Your task to perform on an android device: Go to network settings Image 0: 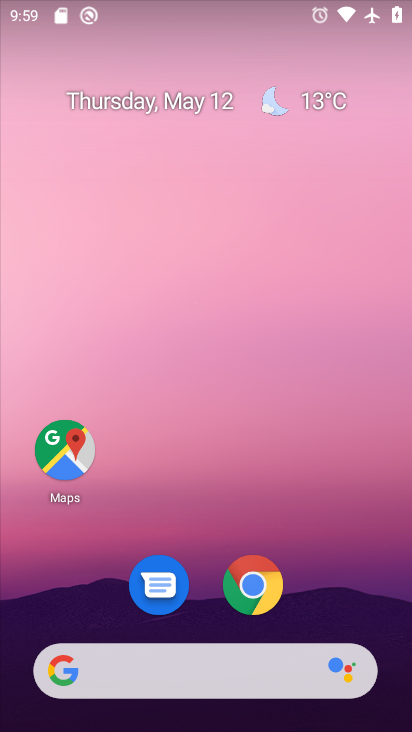
Step 0: drag from (245, 523) to (286, 59)
Your task to perform on an android device: Go to network settings Image 1: 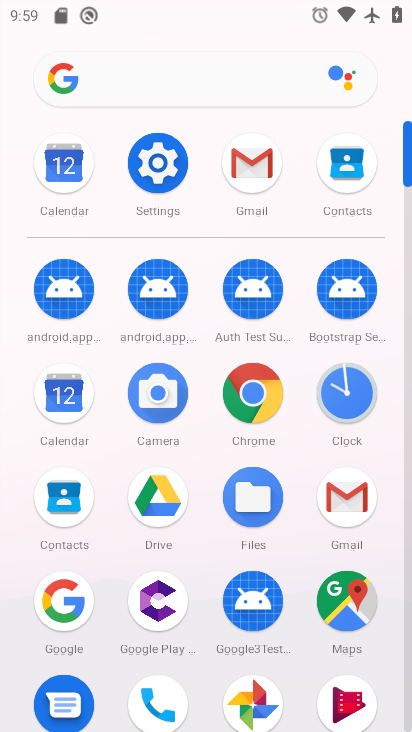
Step 1: click (146, 161)
Your task to perform on an android device: Go to network settings Image 2: 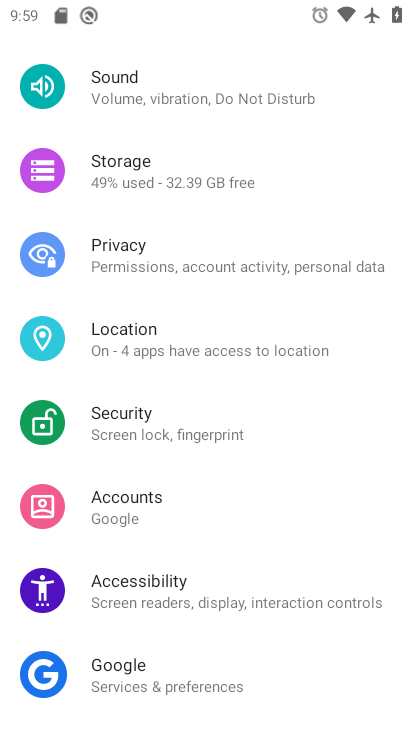
Step 2: drag from (206, 164) to (231, 516)
Your task to perform on an android device: Go to network settings Image 3: 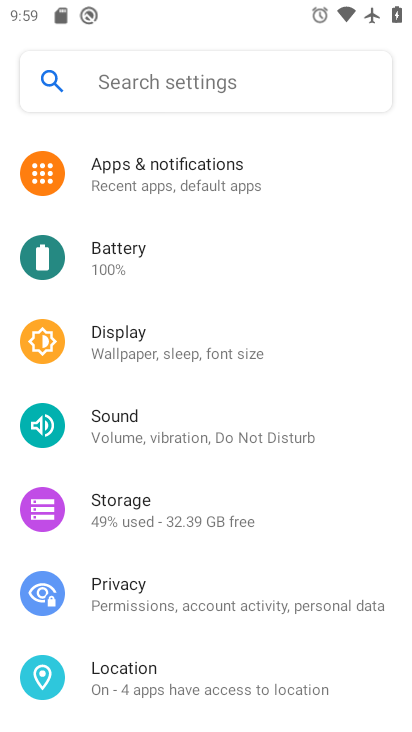
Step 3: drag from (224, 278) to (222, 603)
Your task to perform on an android device: Go to network settings Image 4: 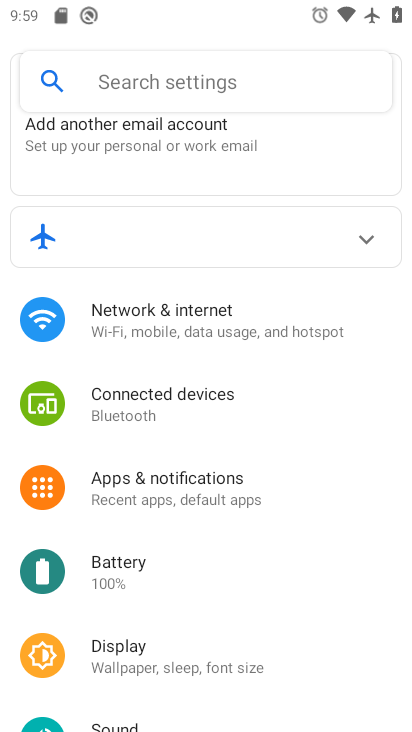
Step 4: click (236, 322)
Your task to perform on an android device: Go to network settings Image 5: 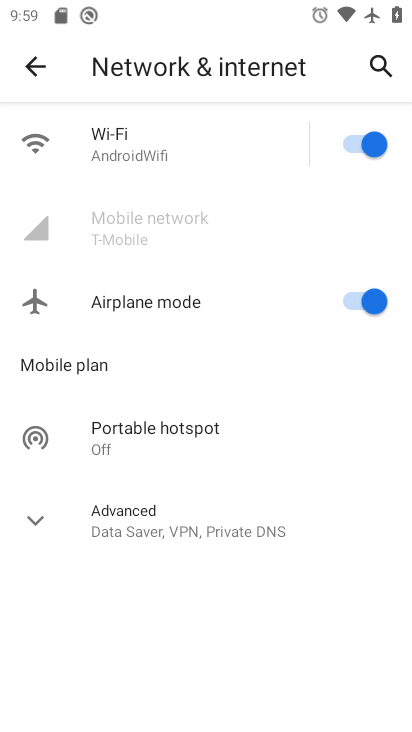
Step 5: task complete